Your task to perform on an android device: set the stopwatch Image 0: 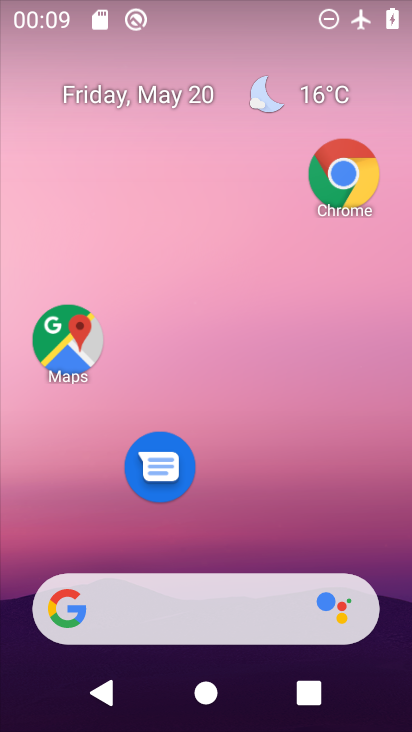
Step 0: drag from (273, 451) to (241, 189)
Your task to perform on an android device: set the stopwatch Image 1: 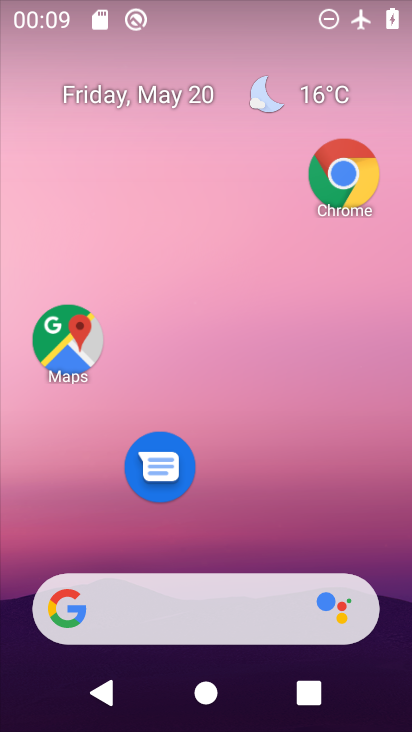
Step 1: drag from (242, 542) to (273, 152)
Your task to perform on an android device: set the stopwatch Image 2: 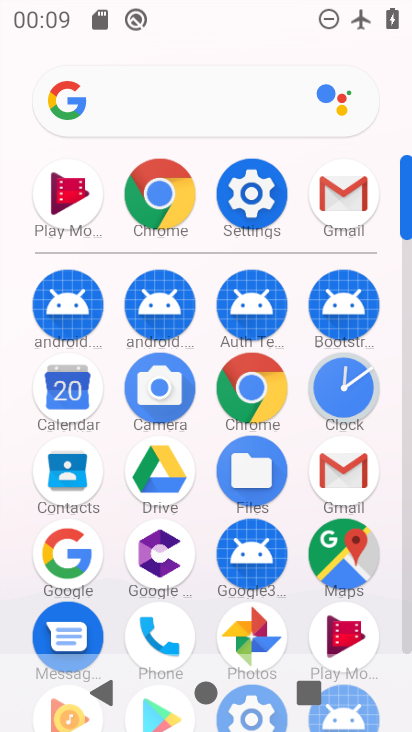
Step 2: click (342, 381)
Your task to perform on an android device: set the stopwatch Image 3: 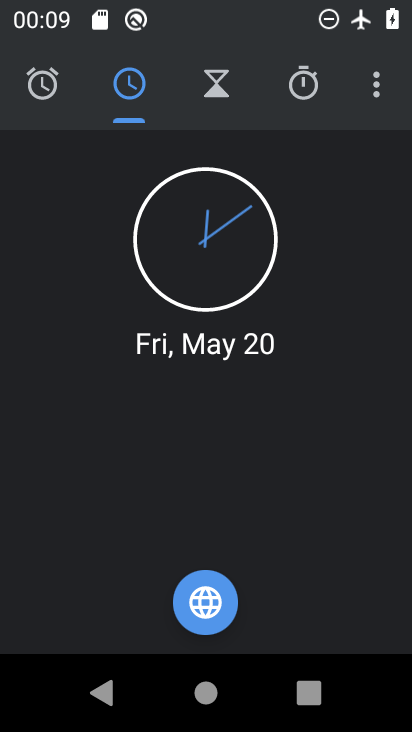
Step 3: click (298, 69)
Your task to perform on an android device: set the stopwatch Image 4: 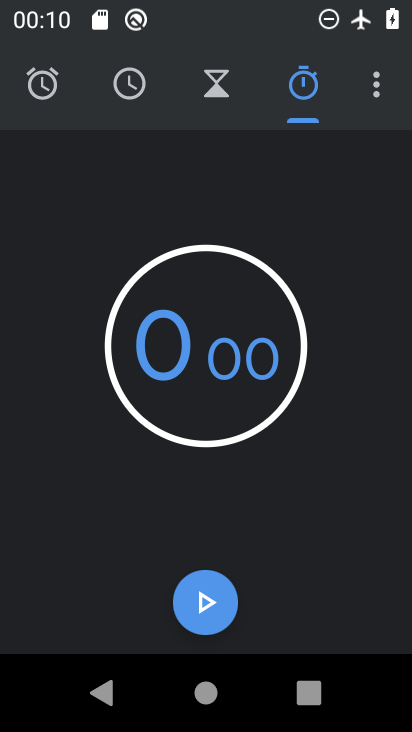
Step 4: task complete